Your task to perform on an android device: turn off javascript in the chrome app Image 0: 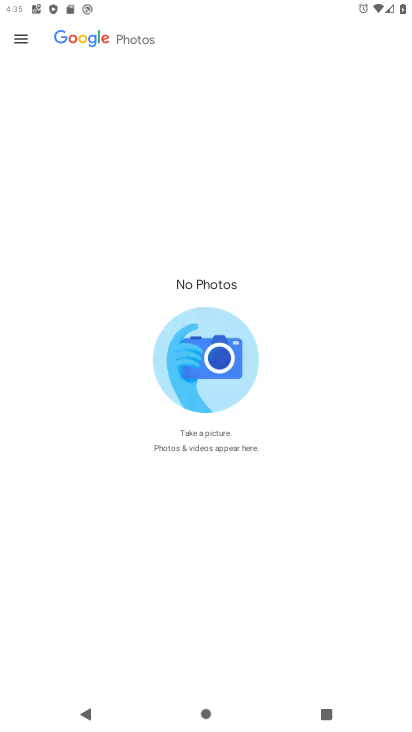
Step 0: press home button
Your task to perform on an android device: turn off javascript in the chrome app Image 1: 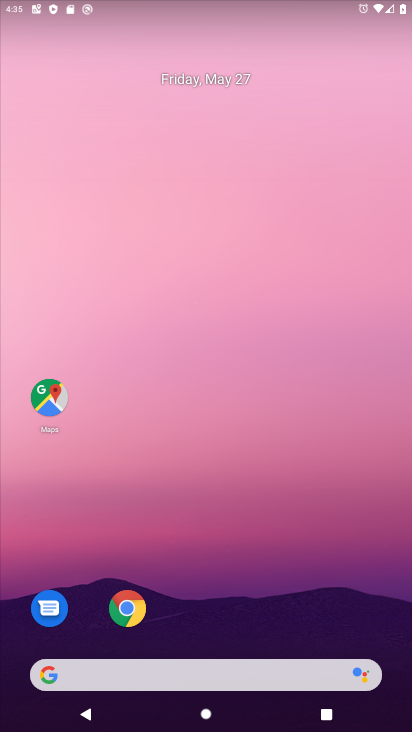
Step 1: click (116, 615)
Your task to perform on an android device: turn off javascript in the chrome app Image 2: 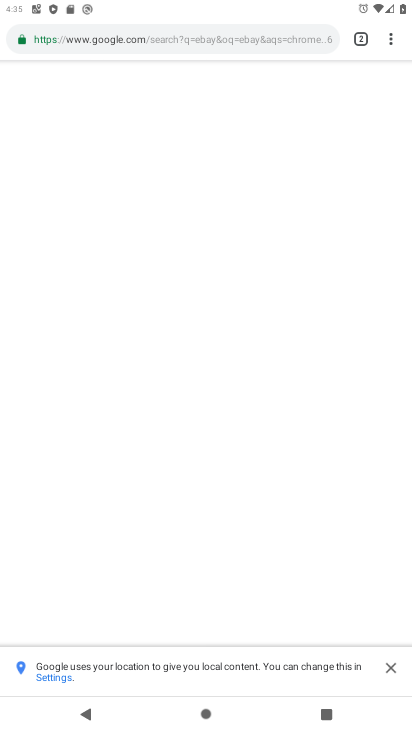
Step 2: click (386, 37)
Your task to perform on an android device: turn off javascript in the chrome app Image 3: 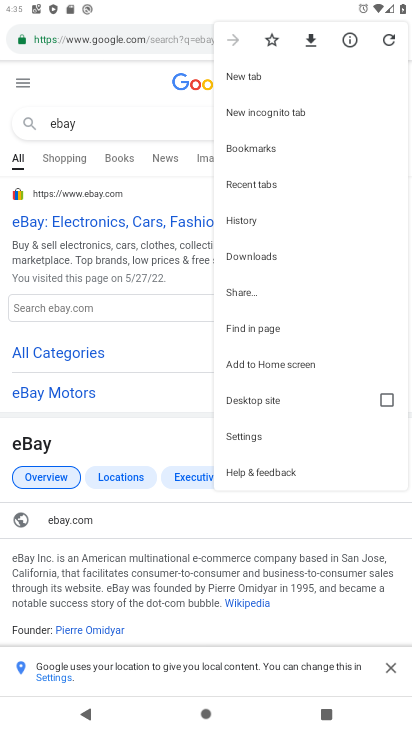
Step 3: click (231, 439)
Your task to perform on an android device: turn off javascript in the chrome app Image 4: 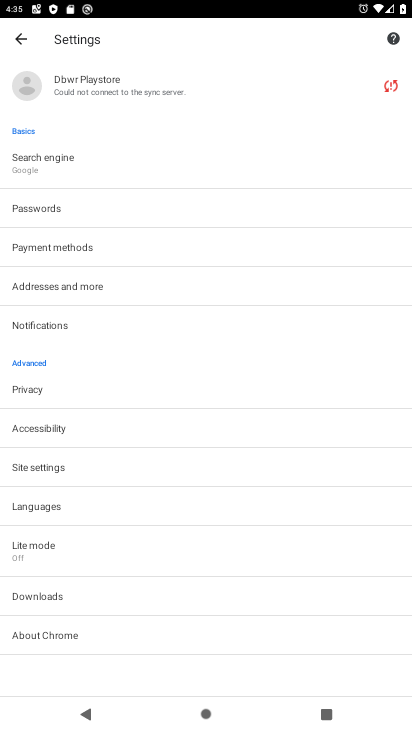
Step 4: click (44, 471)
Your task to perform on an android device: turn off javascript in the chrome app Image 5: 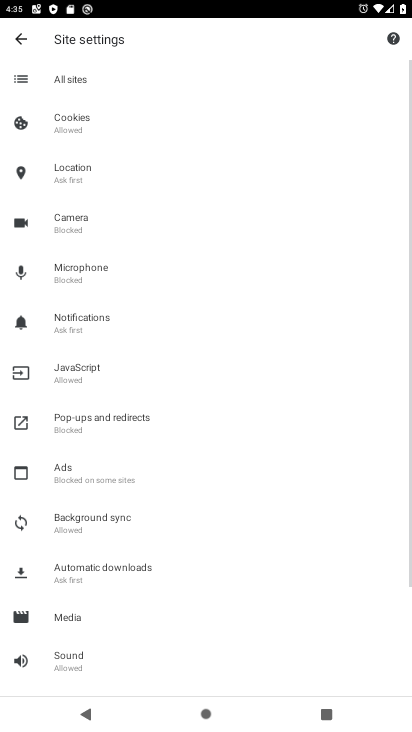
Step 5: click (88, 383)
Your task to perform on an android device: turn off javascript in the chrome app Image 6: 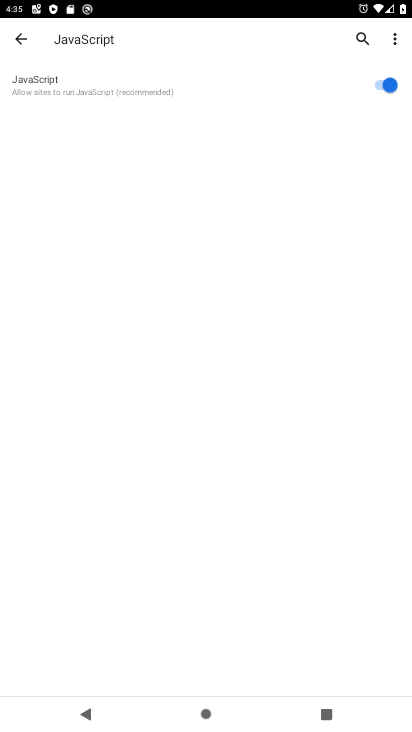
Step 6: click (375, 84)
Your task to perform on an android device: turn off javascript in the chrome app Image 7: 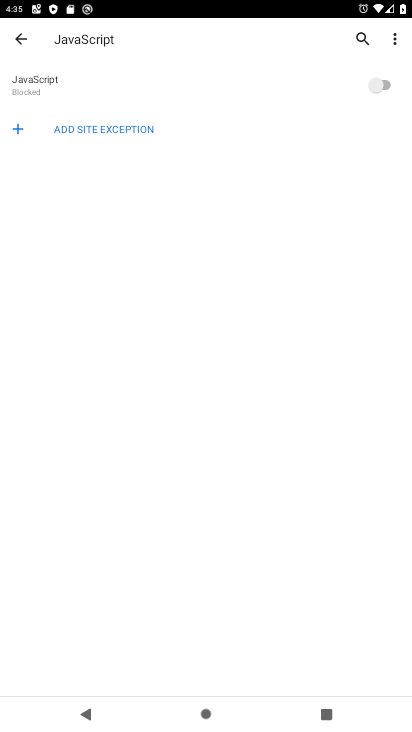
Step 7: task complete